Your task to perform on an android device: turn on the 24-hour format for clock Image 0: 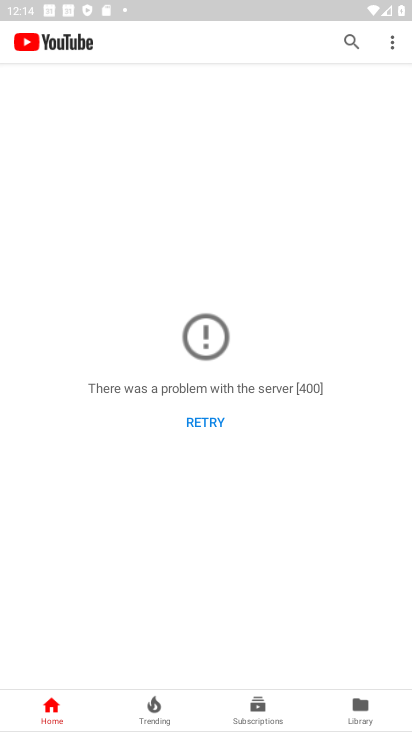
Step 0: press home button
Your task to perform on an android device: turn on the 24-hour format for clock Image 1: 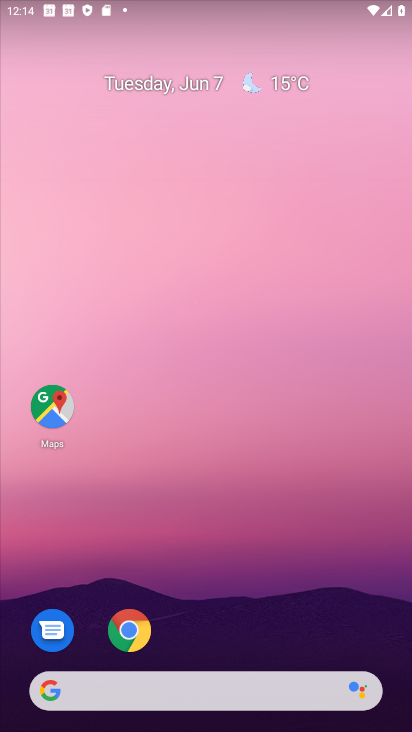
Step 1: drag from (295, 609) to (332, 174)
Your task to perform on an android device: turn on the 24-hour format for clock Image 2: 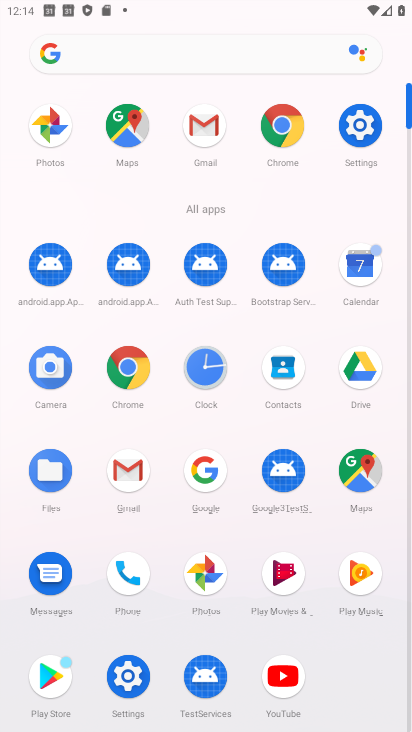
Step 2: click (219, 369)
Your task to perform on an android device: turn on the 24-hour format for clock Image 3: 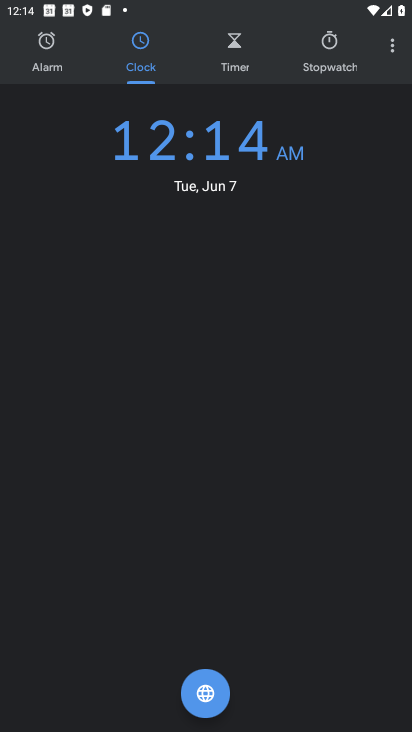
Step 3: drag from (393, 46) to (316, 86)
Your task to perform on an android device: turn on the 24-hour format for clock Image 4: 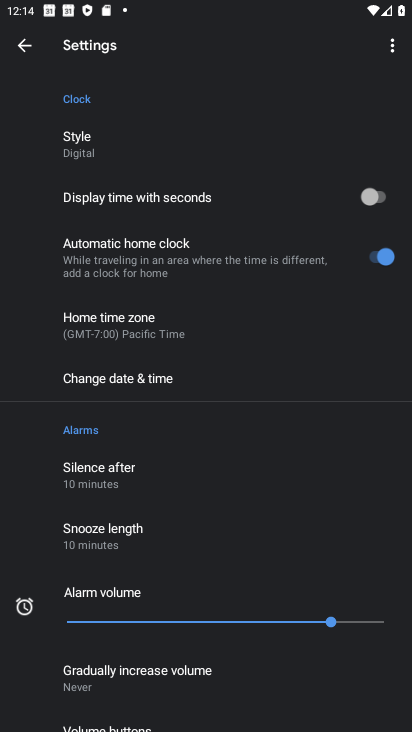
Step 4: click (233, 378)
Your task to perform on an android device: turn on the 24-hour format for clock Image 5: 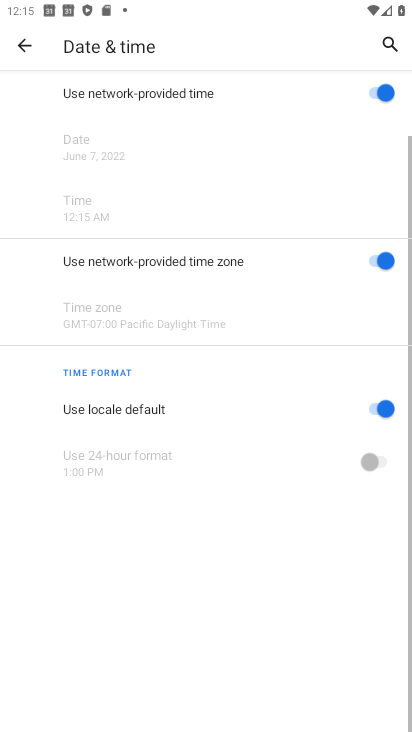
Step 5: click (373, 412)
Your task to perform on an android device: turn on the 24-hour format for clock Image 6: 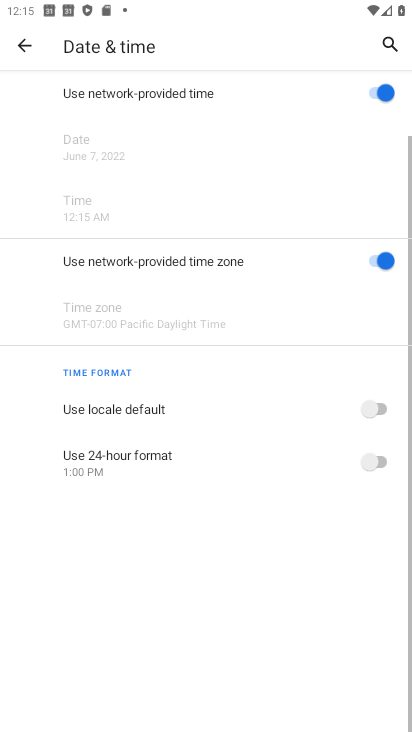
Step 6: click (380, 461)
Your task to perform on an android device: turn on the 24-hour format for clock Image 7: 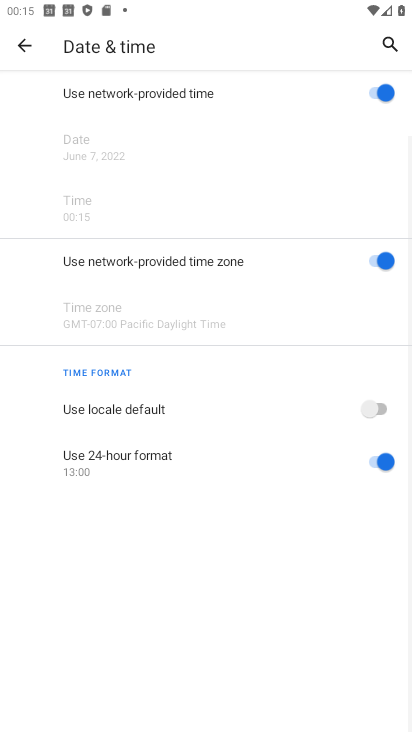
Step 7: task complete